Your task to perform on an android device: empty trash in google photos Image 0: 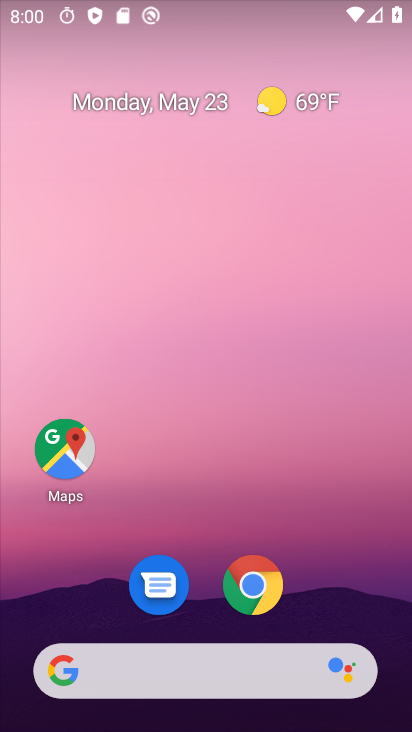
Step 0: drag from (255, 504) to (224, 84)
Your task to perform on an android device: empty trash in google photos Image 1: 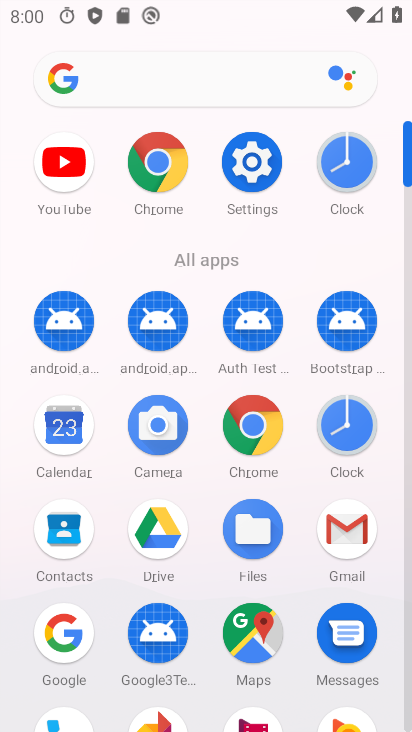
Step 1: drag from (185, 359) to (222, 165)
Your task to perform on an android device: empty trash in google photos Image 2: 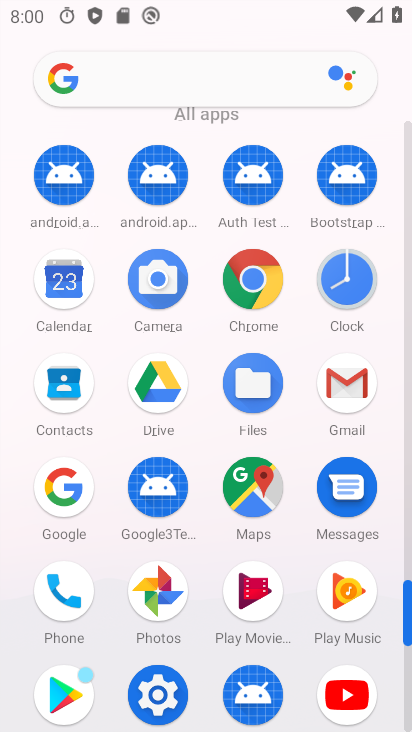
Step 2: click (168, 581)
Your task to perform on an android device: empty trash in google photos Image 3: 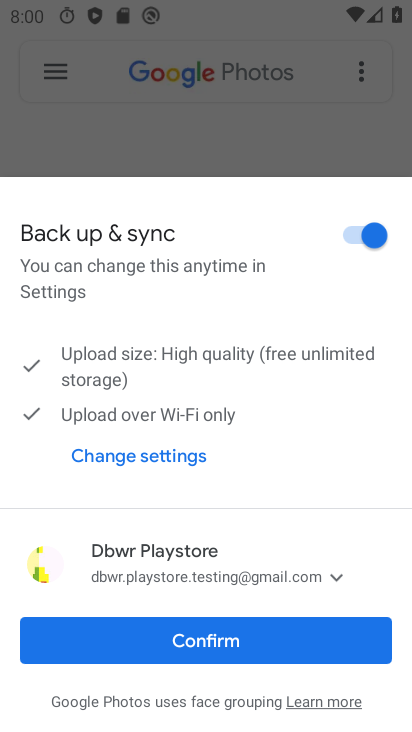
Step 3: click (198, 640)
Your task to perform on an android device: empty trash in google photos Image 4: 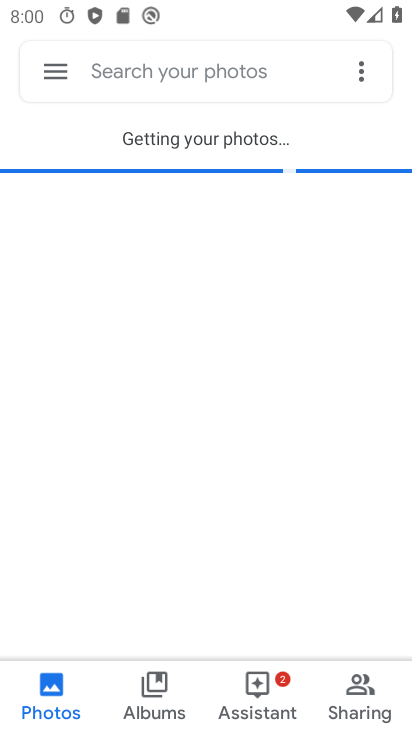
Step 4: click (55, 74)
Your task to perform on an android device: empty trash in google photos Image 5: 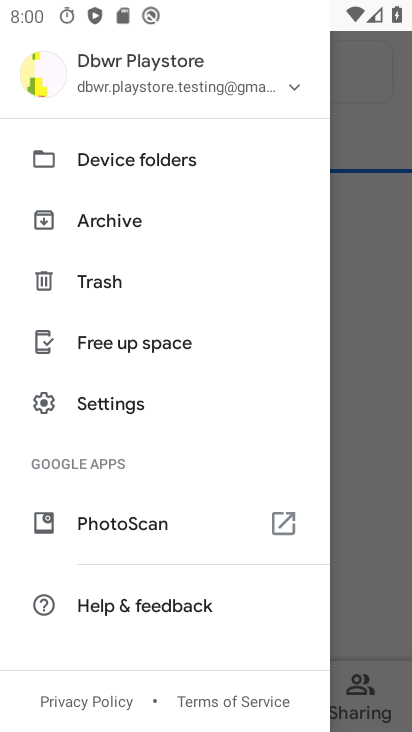
Step 5: click (91, 277)
Your task to perform on an android device: empty trash in google photos Image 6: 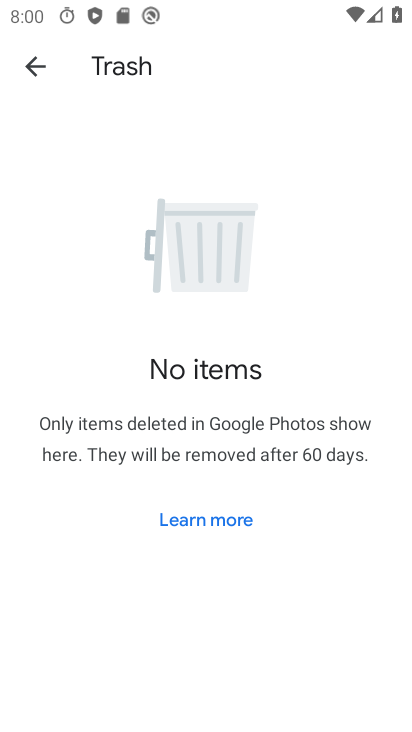
Step 6: task complete